Your task to perform on an android device: What's the weather going to be this weekend? Image 0: 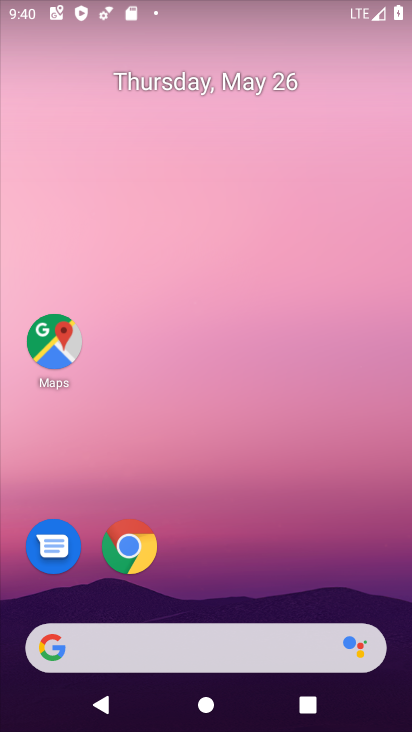
Step 0: press home button
Your task to perform on an android device: What's the weather going to be this weekend? Image 1: 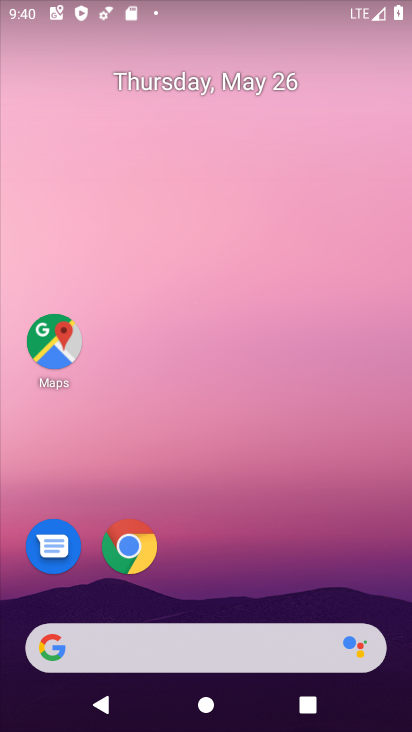
Step 1: drag from (355, 576) to (391, 5)
Your task to perform on an android device: What's the weather going to be this weekend? Image 2: 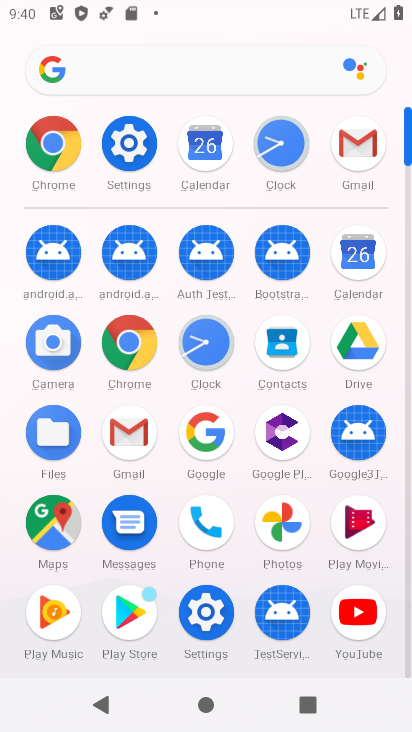
Step 2: click (137, 342)
Your task to perform on an android device: What's the weather going to be this weekend? Image 3: 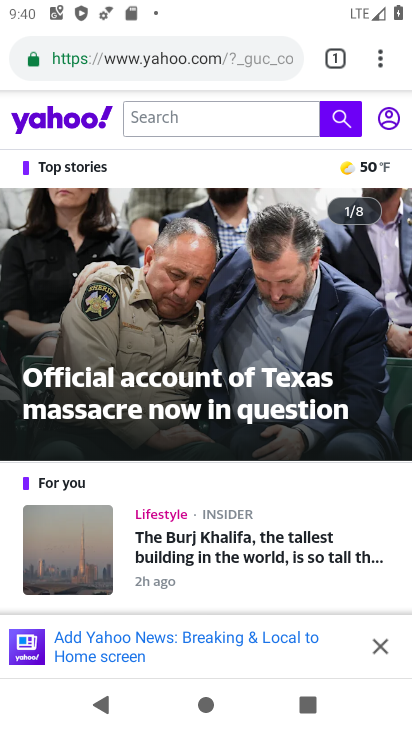
Step 3: click (195, 57)
Your task to perform on an android device: What's the weather going to be this weekend? Image 4: 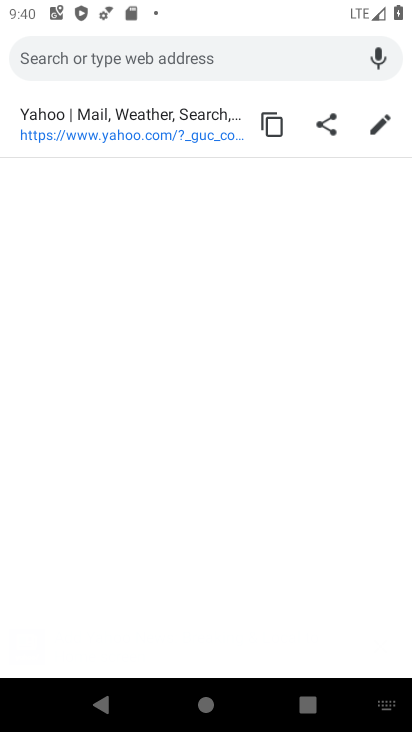
Step 4: type "what's the weather going to be this weekend "
Your task to perform on an android device: What's the weather going to be this weekend? Image 5: 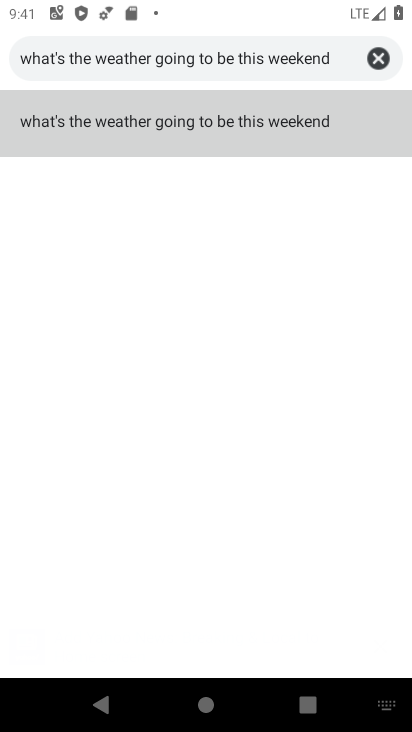
Step 5: click (130, 120)
Your task to perform on an android device: What's the weather going to be this weekend? Image 6: 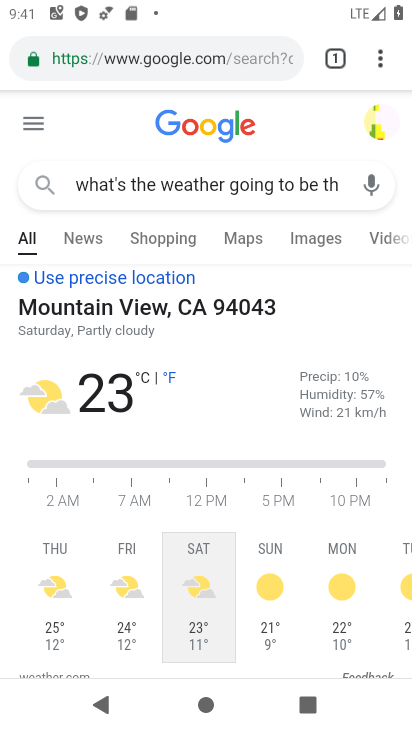
Step 6: task complete